Your task to perform on an android device: toggle translation in the chrome app Image 0: 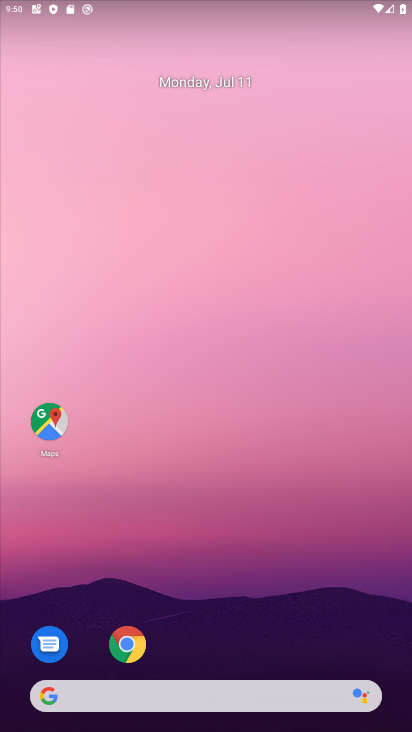
Step 0: click (126, 644)
Your task to perform on an android device: toggle translation in the chrome app Image 1: 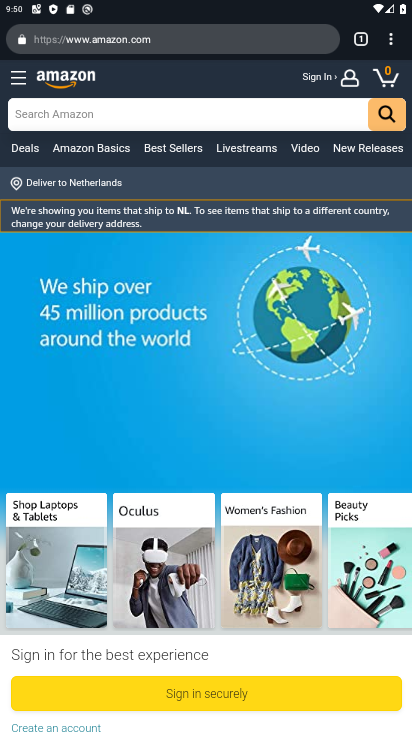
Step 1: click (386, 36)
Your task to perform on an android device: toggle translation in the chrome app Image 2: 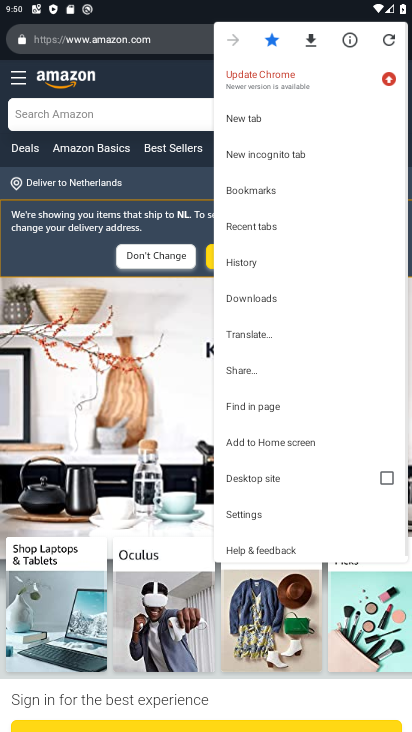
Step 2: click (250, 512)
Your task to perform on an android device: toggle translation in the chrome app Image 3: 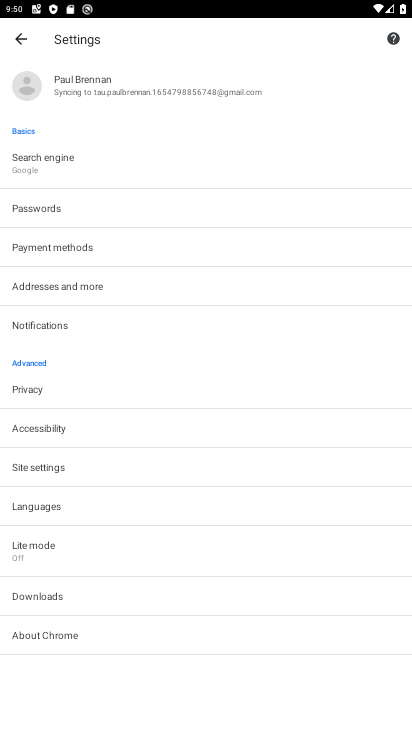
Step 3: click (39, 509)
Your task to perform on an android device: toggle translation in the chrome app Image 4: 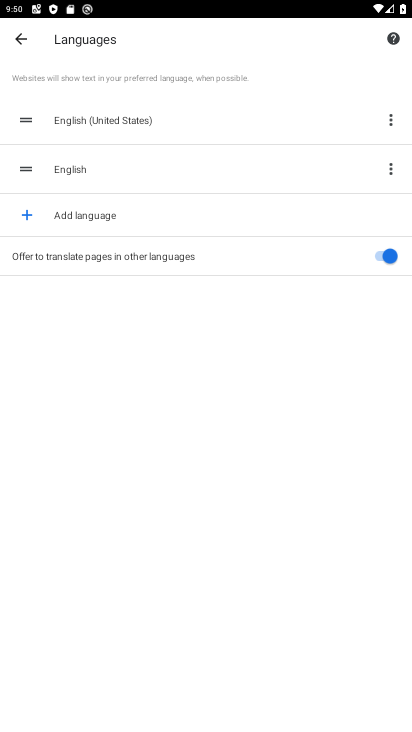
Step 4: click (386, 258)
Your task to perform on an android device: toggle translation in the chrome app Image 5: 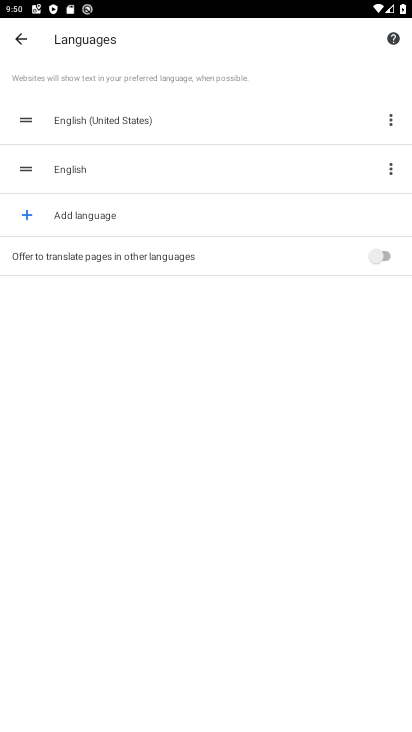
Step 5: task complete